Your task to perform on an android device: show emergency info Image 0: 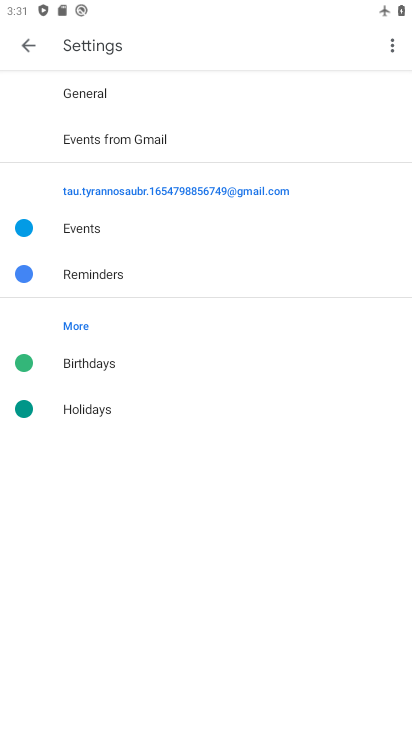
Step 0: press home button
Your task to perform on an android device: show emergency info Image 1: 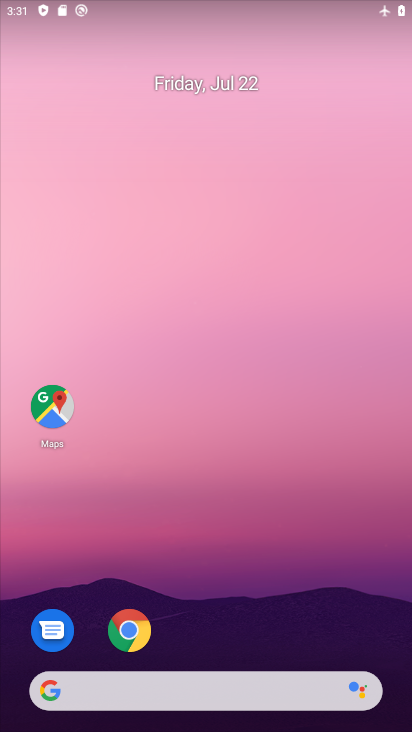
Step 1: drag from (240, 658) to (279, 55)
Your task to perform on an android device: show emergency info Image 2: 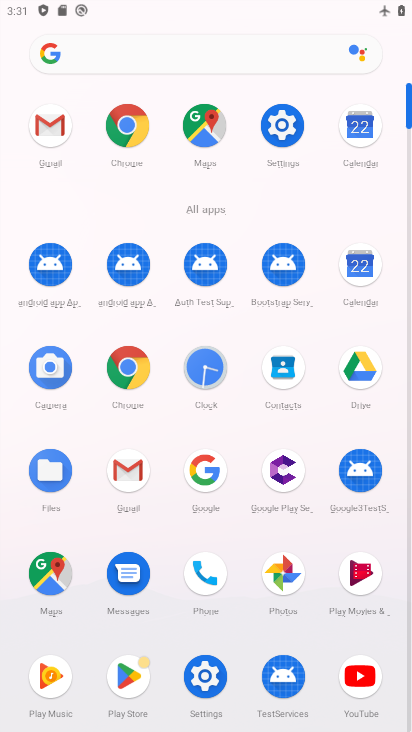
Step 2: click (198, 678)
Your task to perform on an android device: show emergency info Image 3: 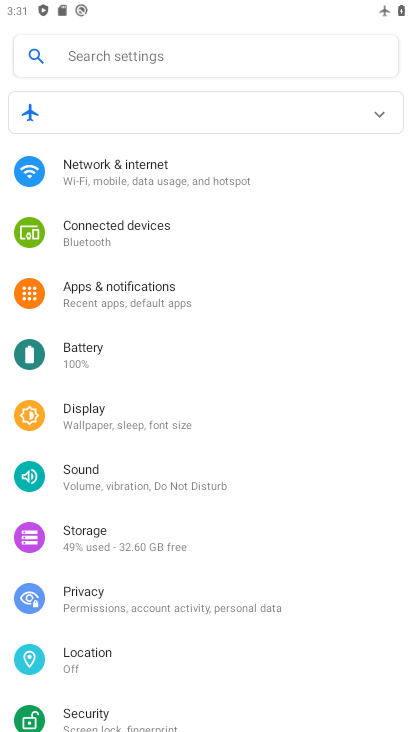
Step 3: drag from (177, 690) to (185, 143)
Your task to perform on an android device: show emergency info Image 4: 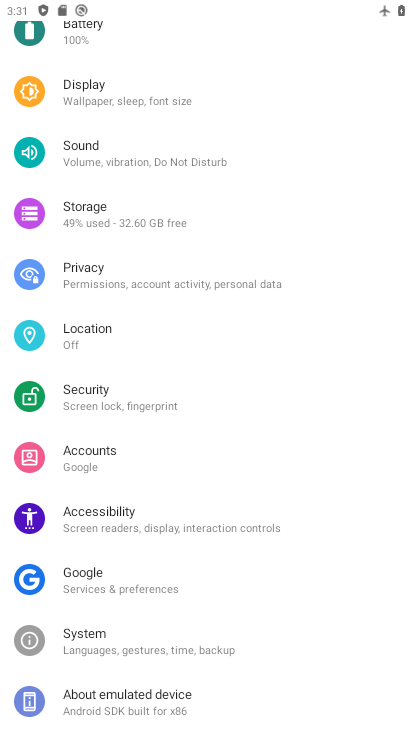
Step 4: drag from (170, 640) to (171, 200)
Your task to perform on an android device: show emergency info Image 5: 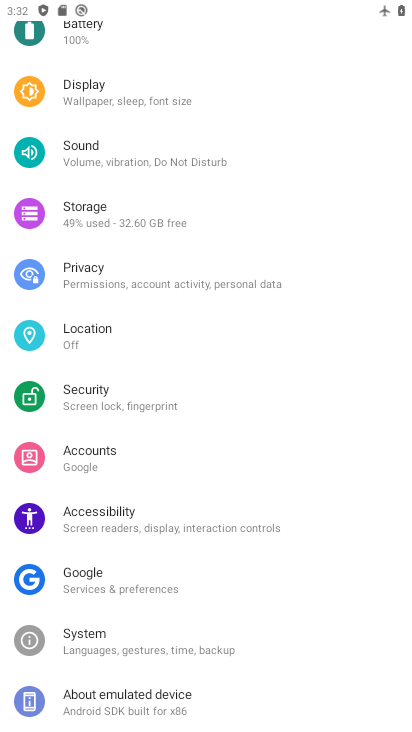
Step 5: click (108, 705)
Your task to perform on an android device: show emergency info Image 6: 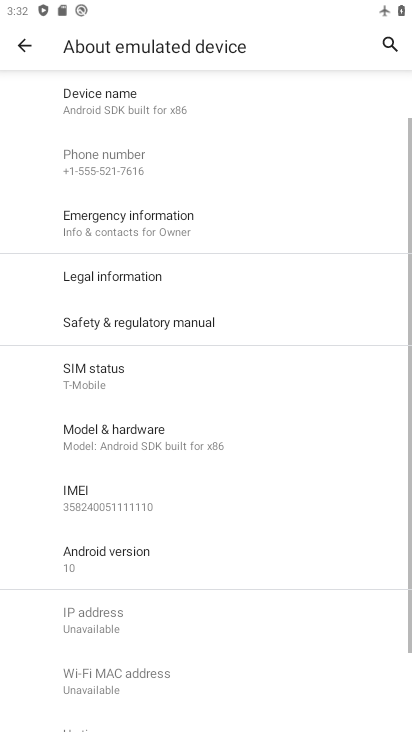
Step 6: click (152, 227)
Your task to perform on an android device: show emergency info Image 7: 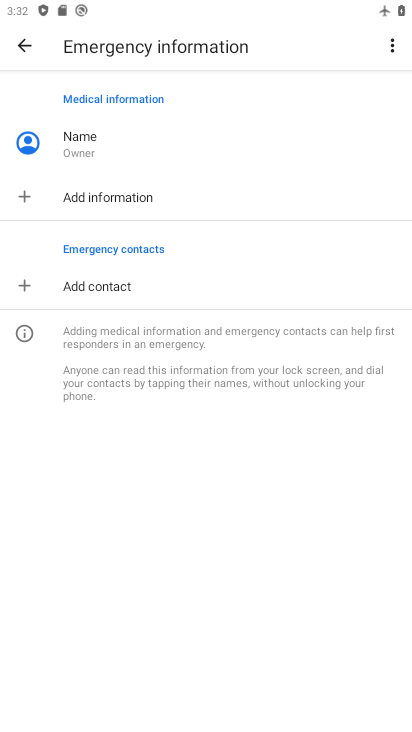
Step 7: task complete